Your task to perform on an android device: Open calendar and show me the first week of next month Image 0: 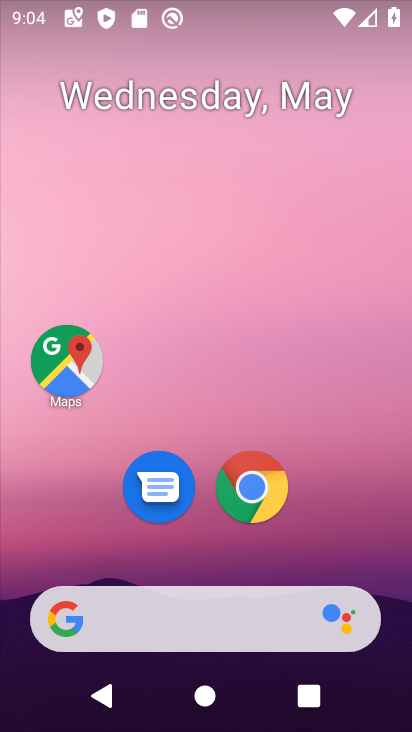
Step 0: click (236, 151)
Your task to perform on an android device: Open calendar and show me the first week of next month Image 1: 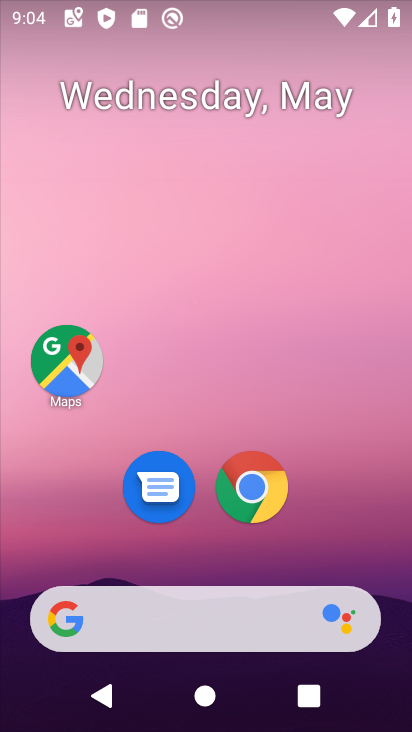
Step 1: drag from (320, 534) to (280, 152)
Your task to perform on an android device: Open calendar and show me the first week of next month Image 2: 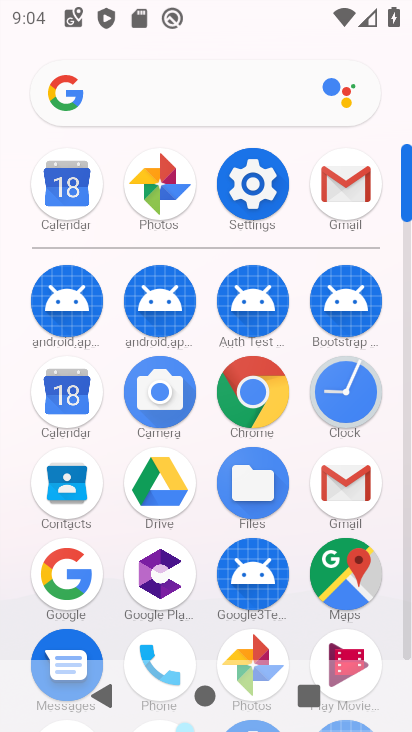
Step 2: click (71, 394)
Your task to perform on an android device: Open calendar and show me the first week of next month Image 3: 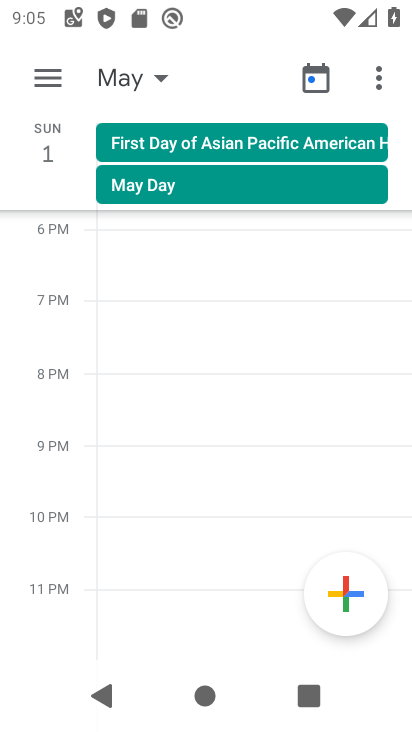
Step 3: click (53, 69)
Your task to perform on an android device: Open calendar and show me the first week of next month Image 4: 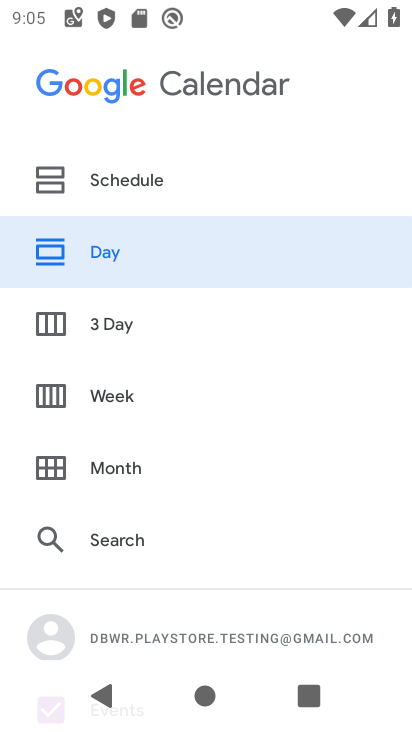
Step 4: click (104, 387)
Your task to perform on an android device: Open calendar and show me the first week of next month Image 5: 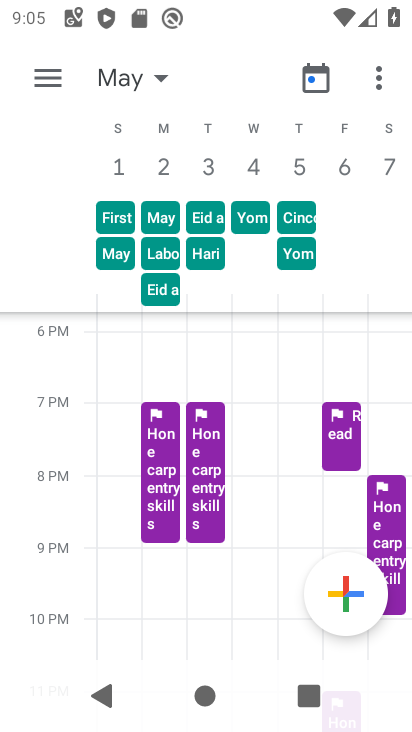
Step 5: click (161, 75)
Your task to perform on an android device: Open calendar and show me the first week of next month Image 6: 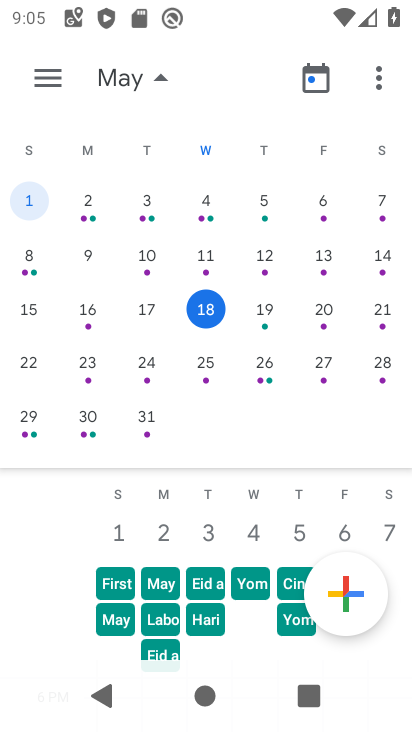
Step 6: task complete